Your task to perform on an android device: delete a single message in the gmail app Image 0: 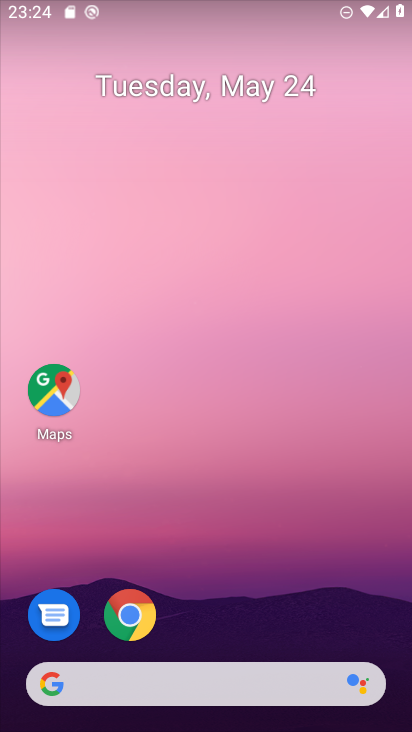
Step 0: drag from (286, 698) to (288, 130)
Your task to perform on an android device: delete a single message in the gmail app Image 1: 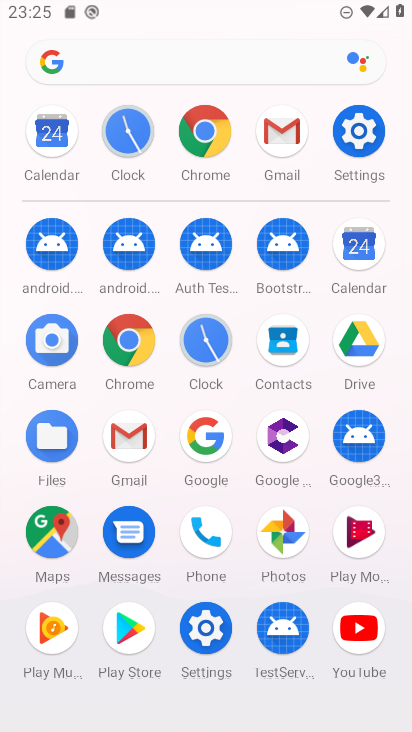
Step 1: click (292, 138)
Your task to perform on an android device: delete a single message in the gmail app Image 2: 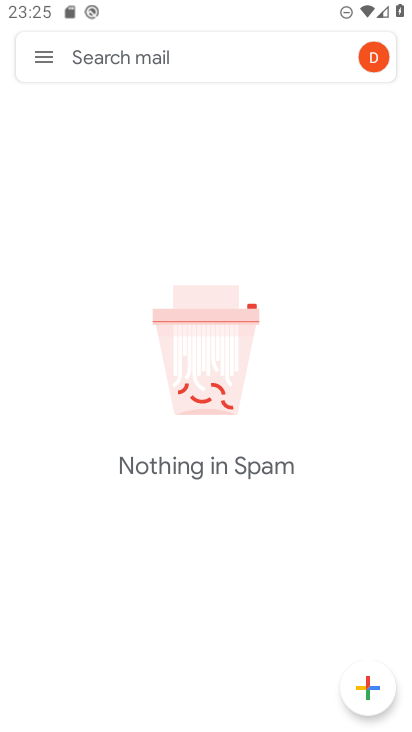
Step 2: click (44, 62)
Your task to perform on an android device: delete a single message in the gmail app Image 3: 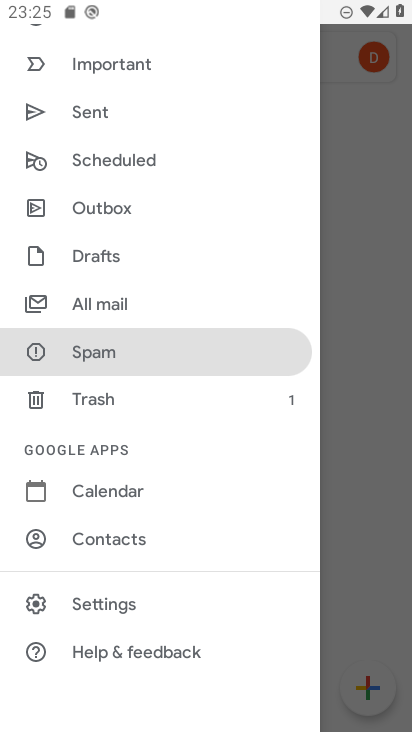
Step 3: click (112, 303)
Your task to perform on an android device: delete a single message in the gmail app Image 4: 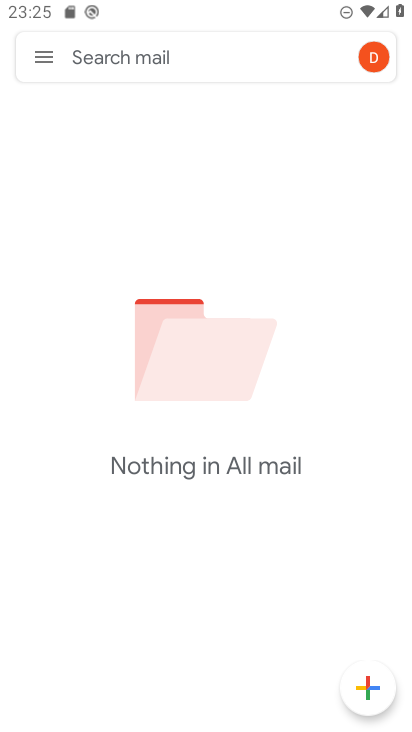
Step 4: task complete